Your task to perform on an android device: Go to wifi settings Image 0: 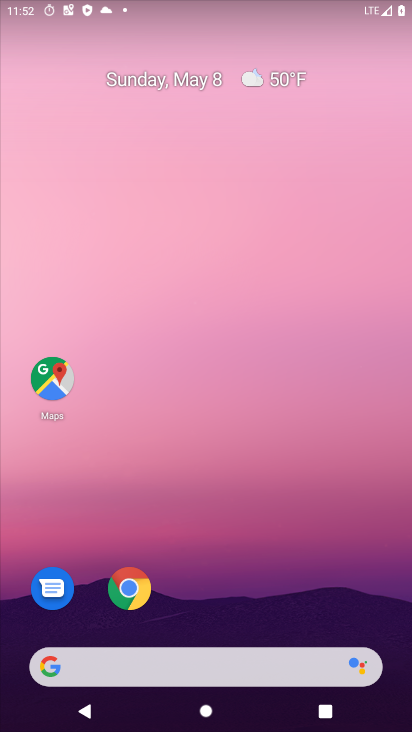
Step 0: drag from (254, 523) to (175, 100)
Your task to perform on an android device: Go to wifi settings Image 1: 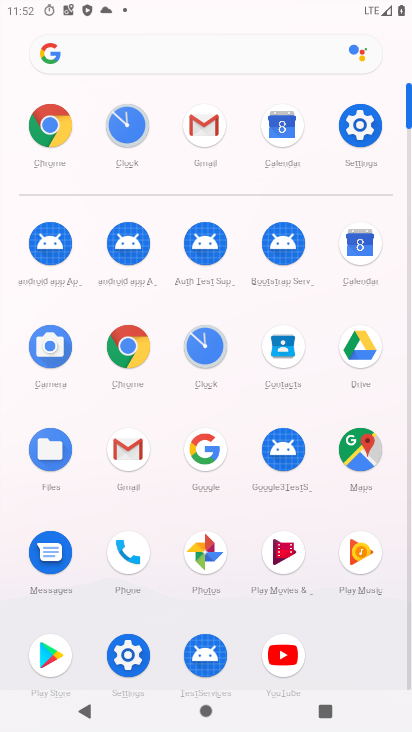
Step 1: click (356, 130)
Your task to perform on an android device: Go to wifi settings Image 2: 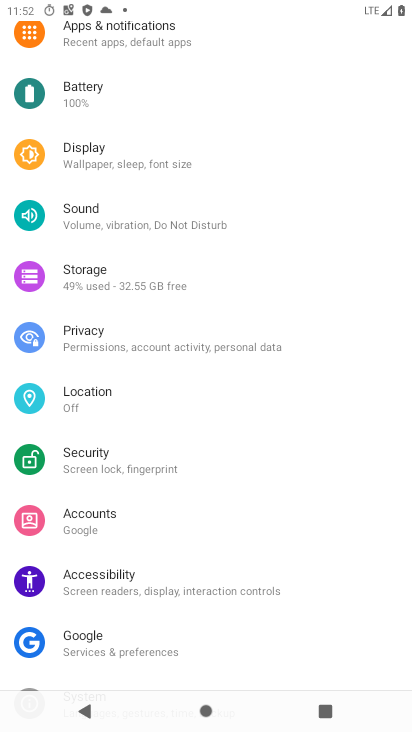
Step 2: drag from (160, 128) to (142, 599)
Your task to perform on an android device: Go to wifi settings Image 3: 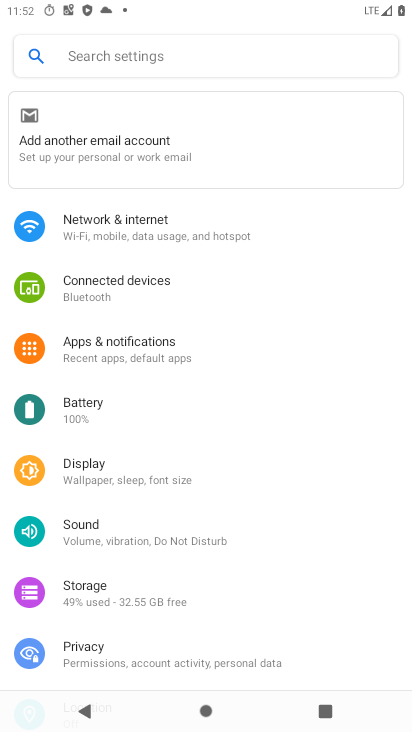
Step 3: click (175, 240)
Your task to perform on an android device: Go to wifi settings Image 4: 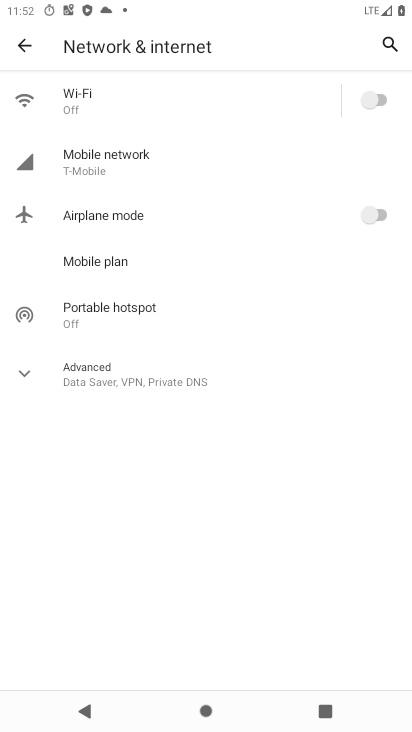
Step 4: click (127, 107)
Your task to perform on an android device: Go to wifi settings Image 5: 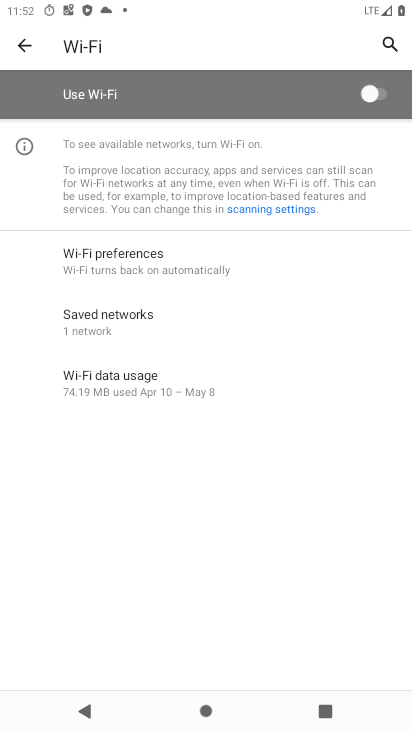
Step 5: task complete